Your task to perform on an android device: Empty the shopping cart on amazon.com. Search for "bose soundlink mini" on amazon.com, select the first entry, and add it to the cart. Image 0: 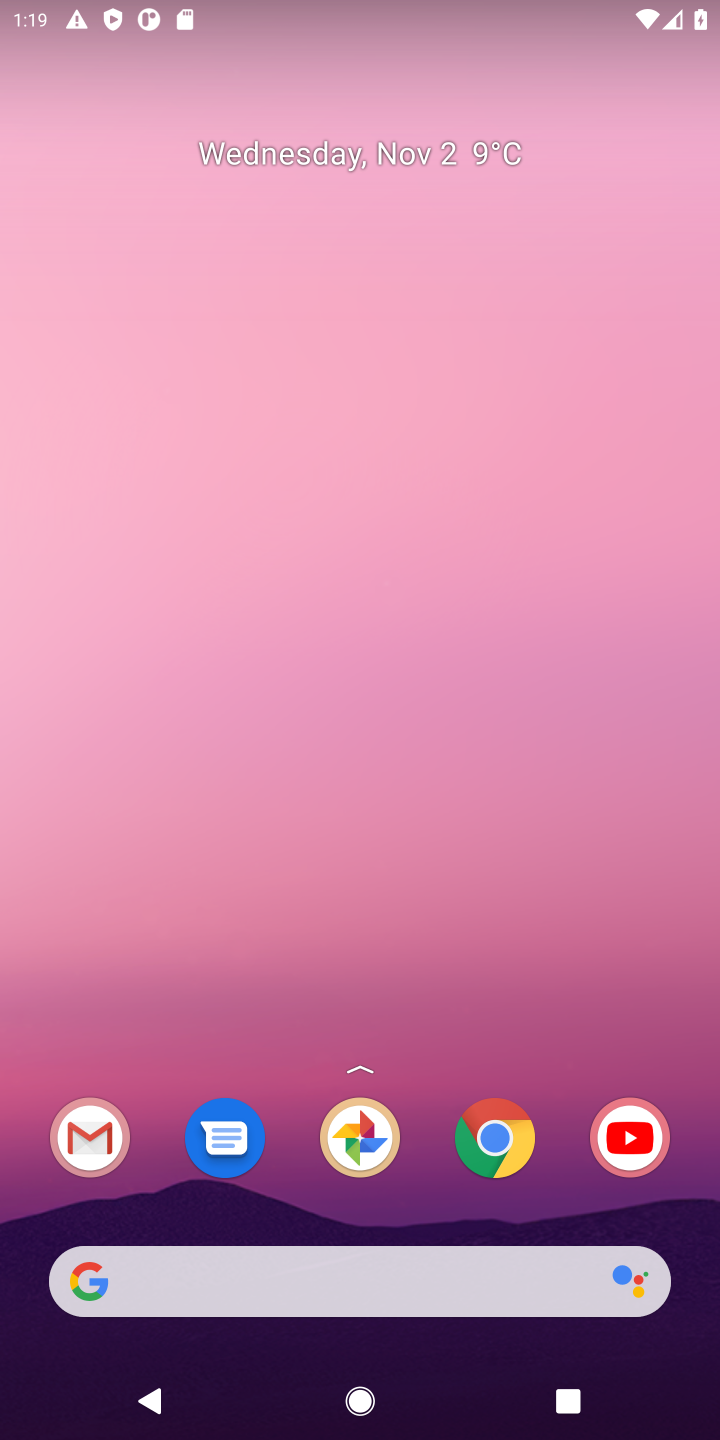
Step 0: click (482, 1172)
Your task to perform on an android device: Empty the shopping cart on amazon.com. Search for "bose soundlink mini" on amazon.com, select the first entry, and add it to the cart. Image 1: 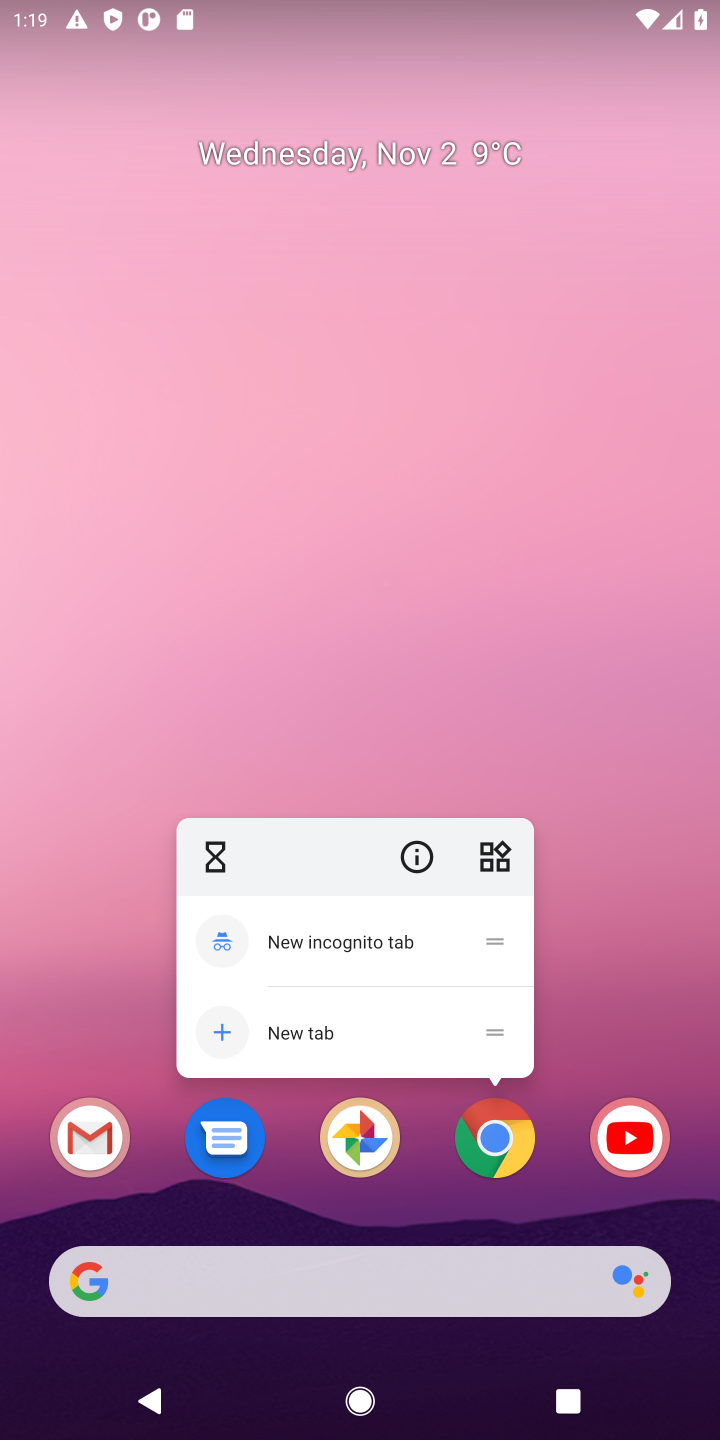
Step 1: click (496, 1147)
Your task to perform on an android device: Empty the shopping cart on amazon.com. Search for "bose soundlink mini" on amazon.com, select the first entry, and add it to the cart. Image 2: 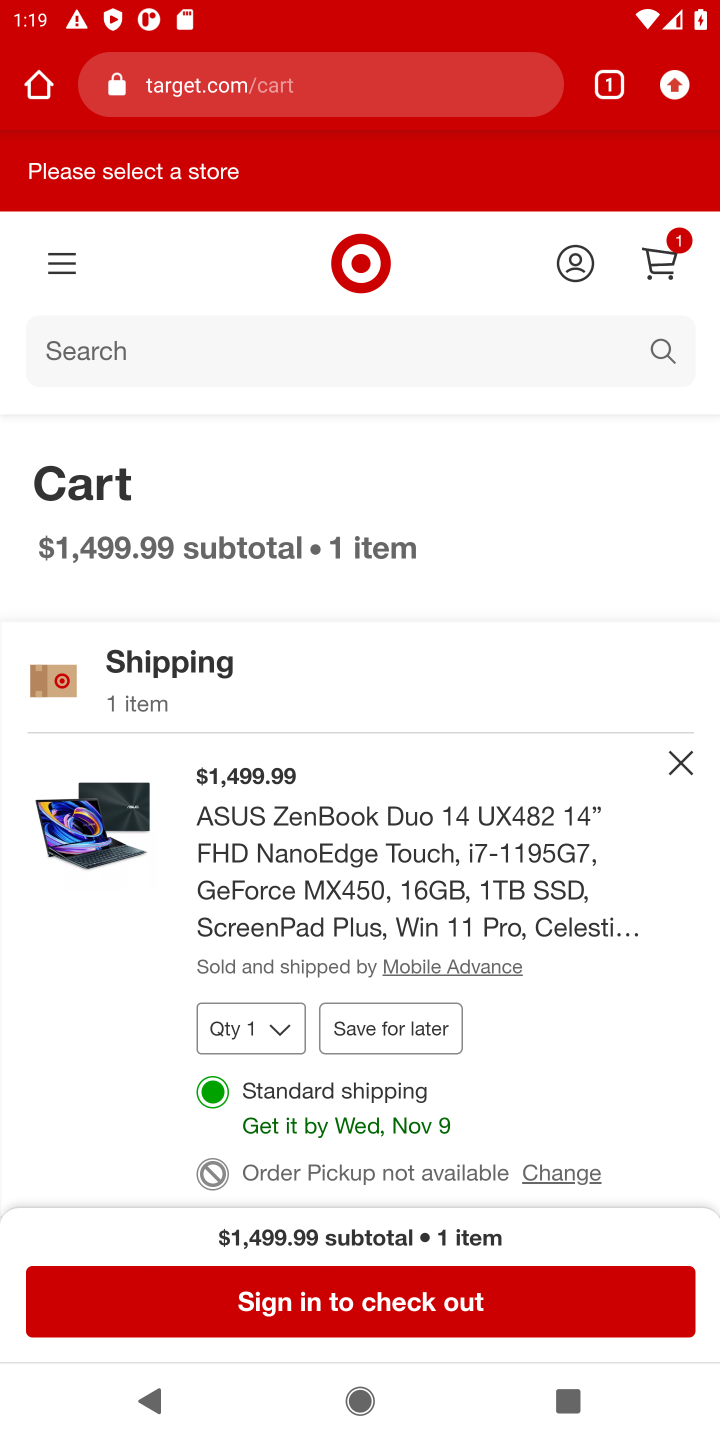
Step 2: click (231, 87)
Your task to perform on an android device: Empty the shopping cart on amazon.com. Search for "bose soundlink mini" on amazon.com, select the first entry, and add it to the cart. Image 3: 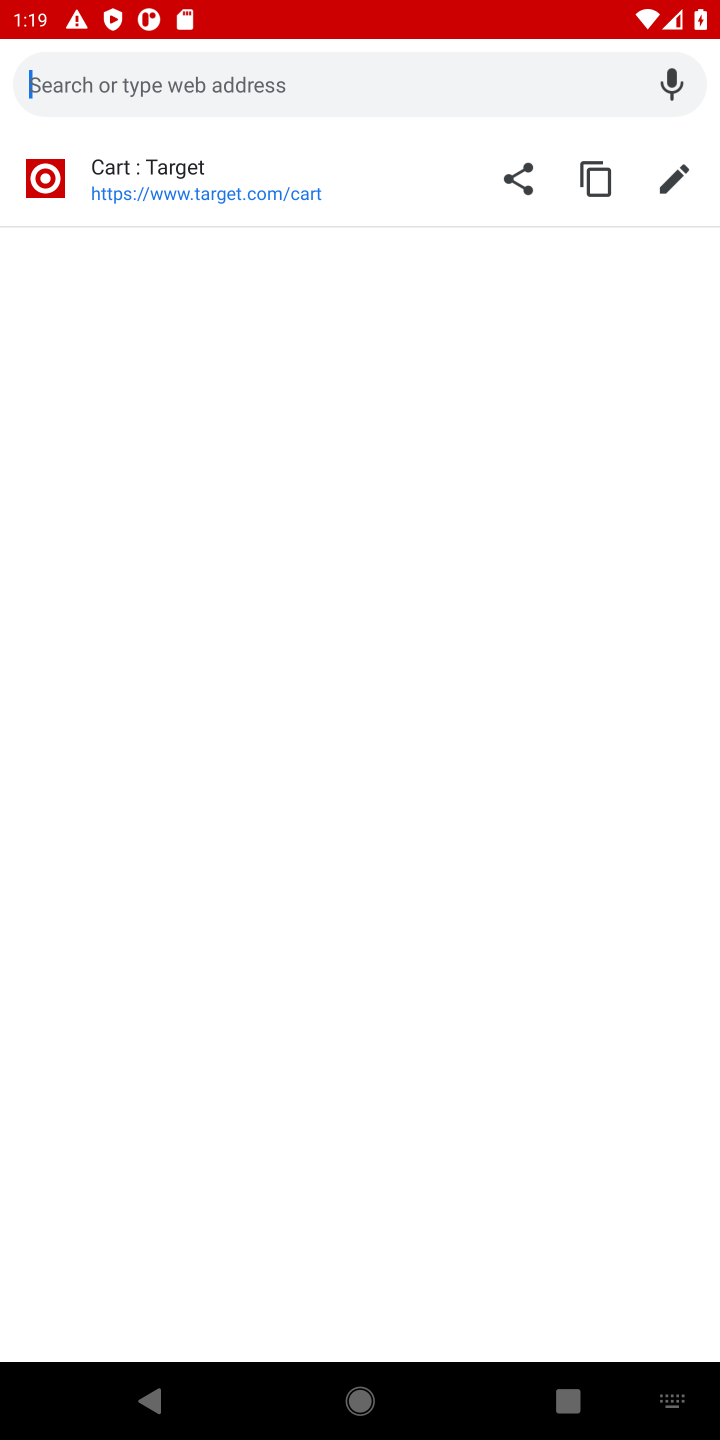
Step 3: type "amazon"
Your task to perform on an android device: Empty the shopping cart on amazon.com. Search for "bose soundlink mini" on amazon.com, select the first entry, and add it to the cart. Image 4: 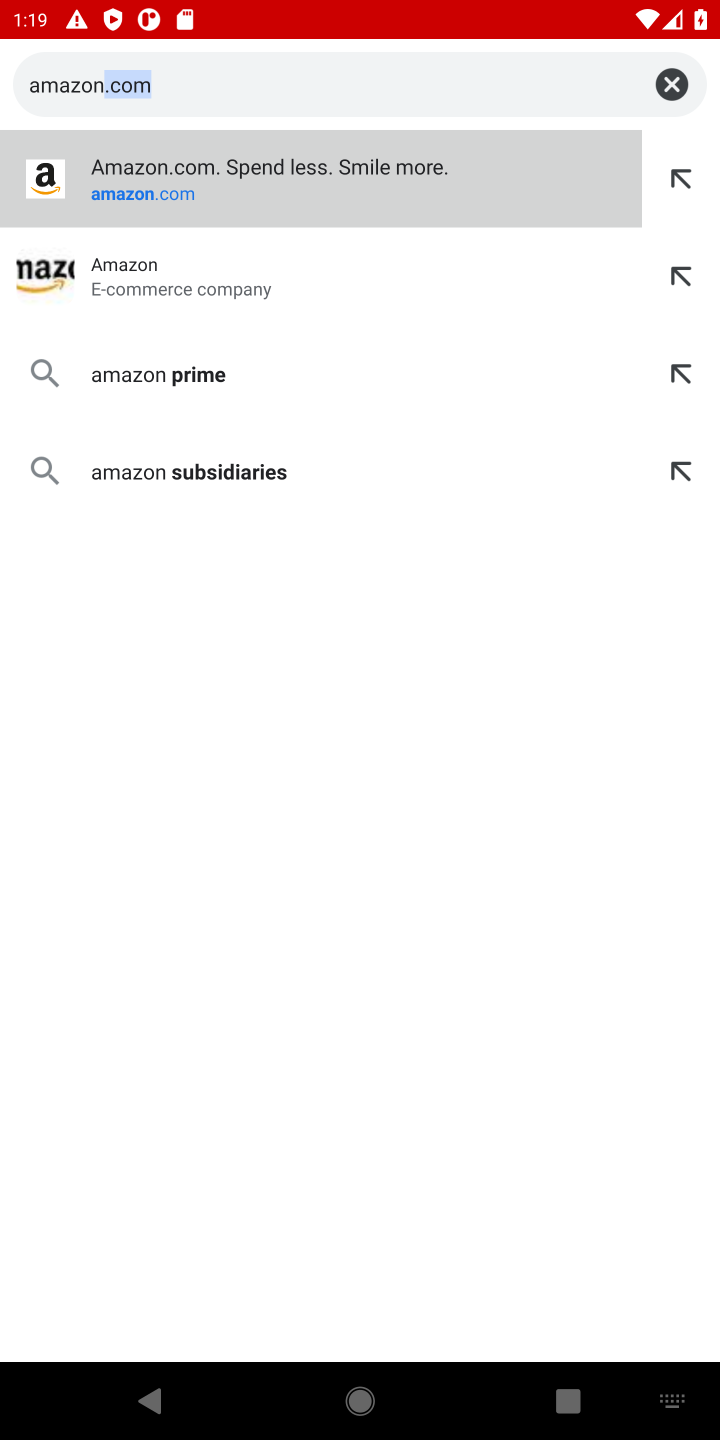
Step 4: click (195, 287)
Your task to perform on an android device: Empty the shopping cart on amazon.com. Search for "bose soundlink mini" on amazon.com, select the first entry, and add it to the cart. Image 5: 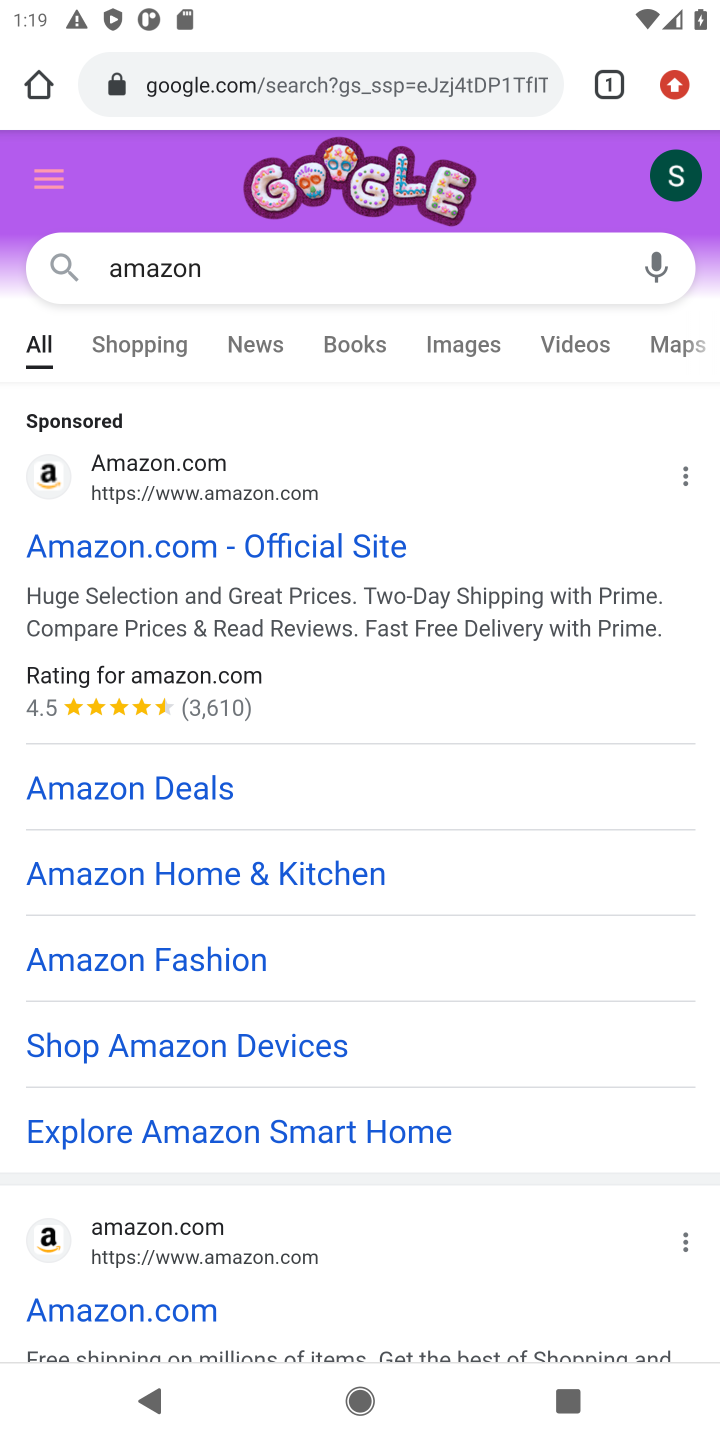
Step 5: click (91, 568)
Your task to perform on an android device: Empty the shopping cart on amazon.com. Search for "bose soundlink mini" on amazon.com, select the first entry, and add it to the cart. Image 6: 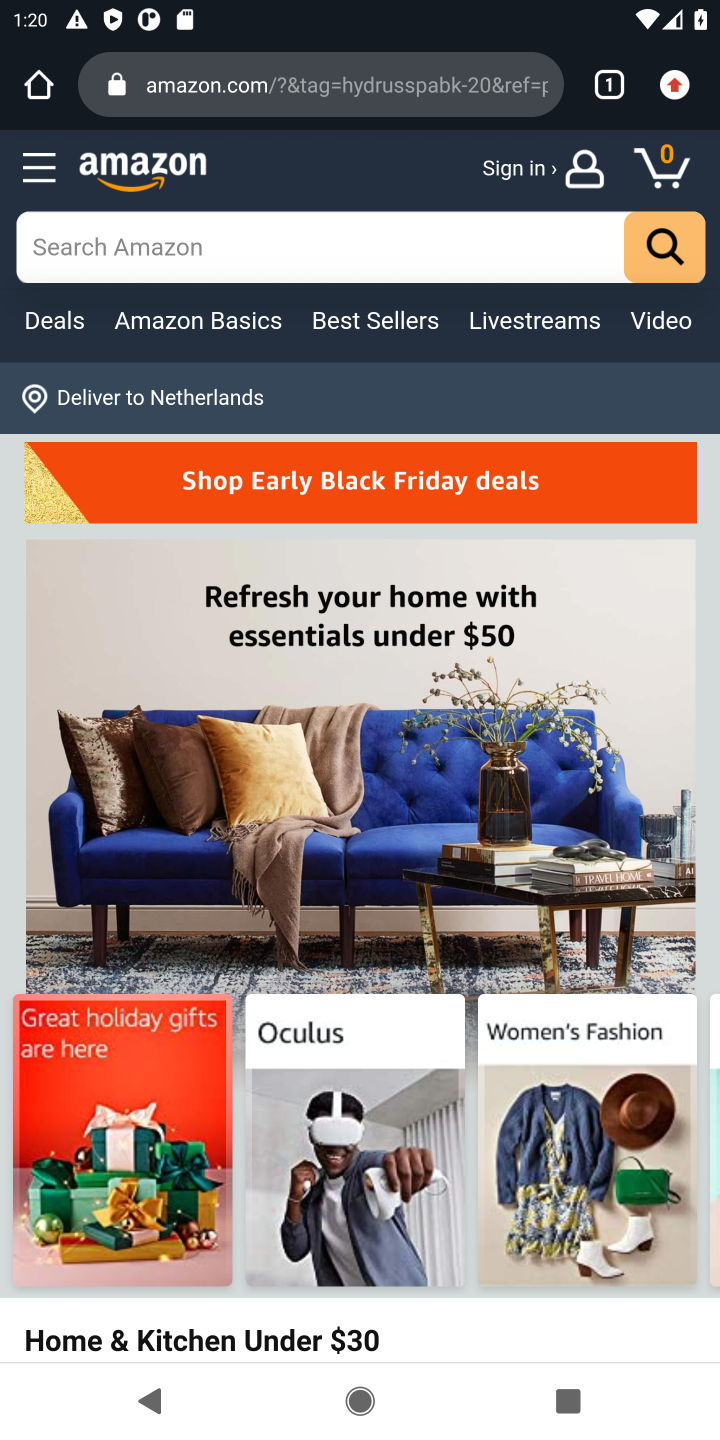
Step 6: click (685, 172)
Your task to perform on an android device: Empty the shopping cart on amazon.com. Search for "bose soundlink mini" on amazon.com, select the first entry, and add it to the cart. Image 7: 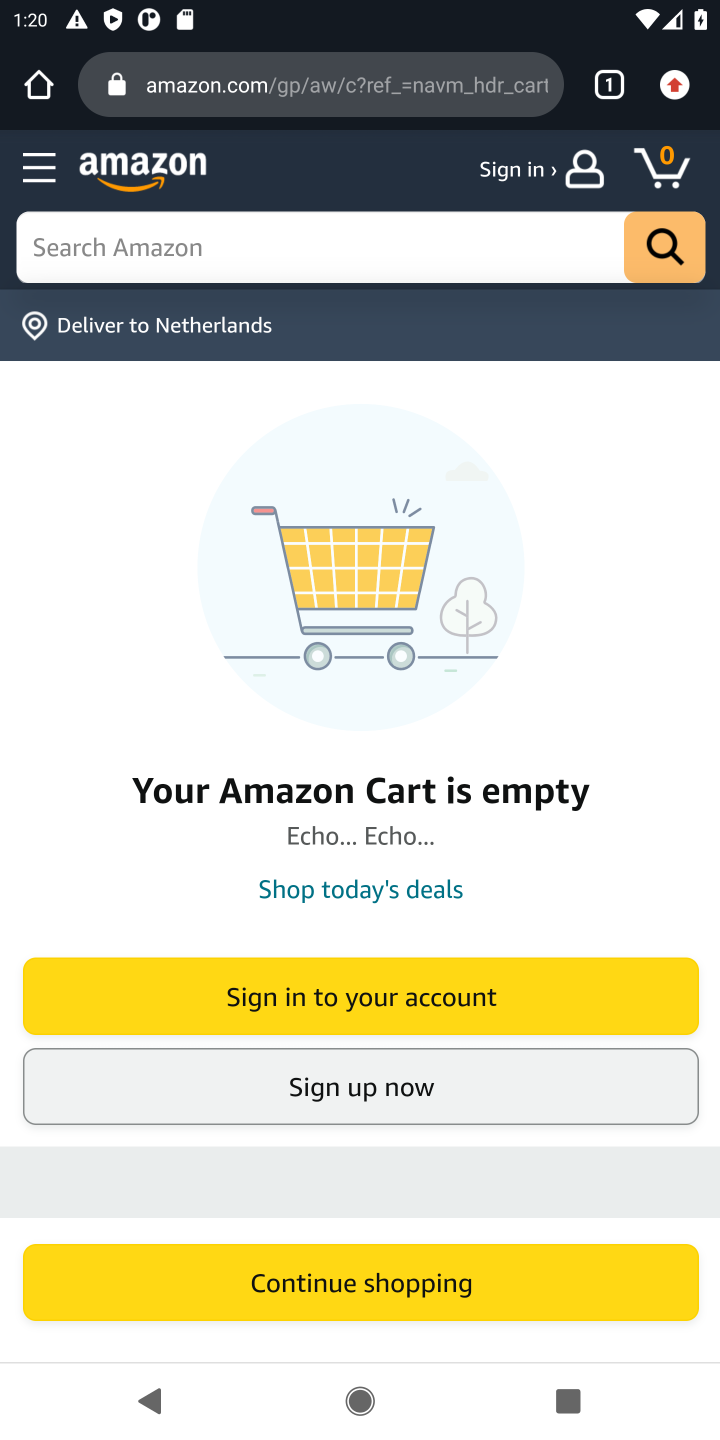
Step 7: click (276, 235)
Your task to perform on an android device: Empty the shopping cart on amazon.com. Search for "bose soundlink mini" on amazon.com, select the first entry, and add it to the cart. Image 8: 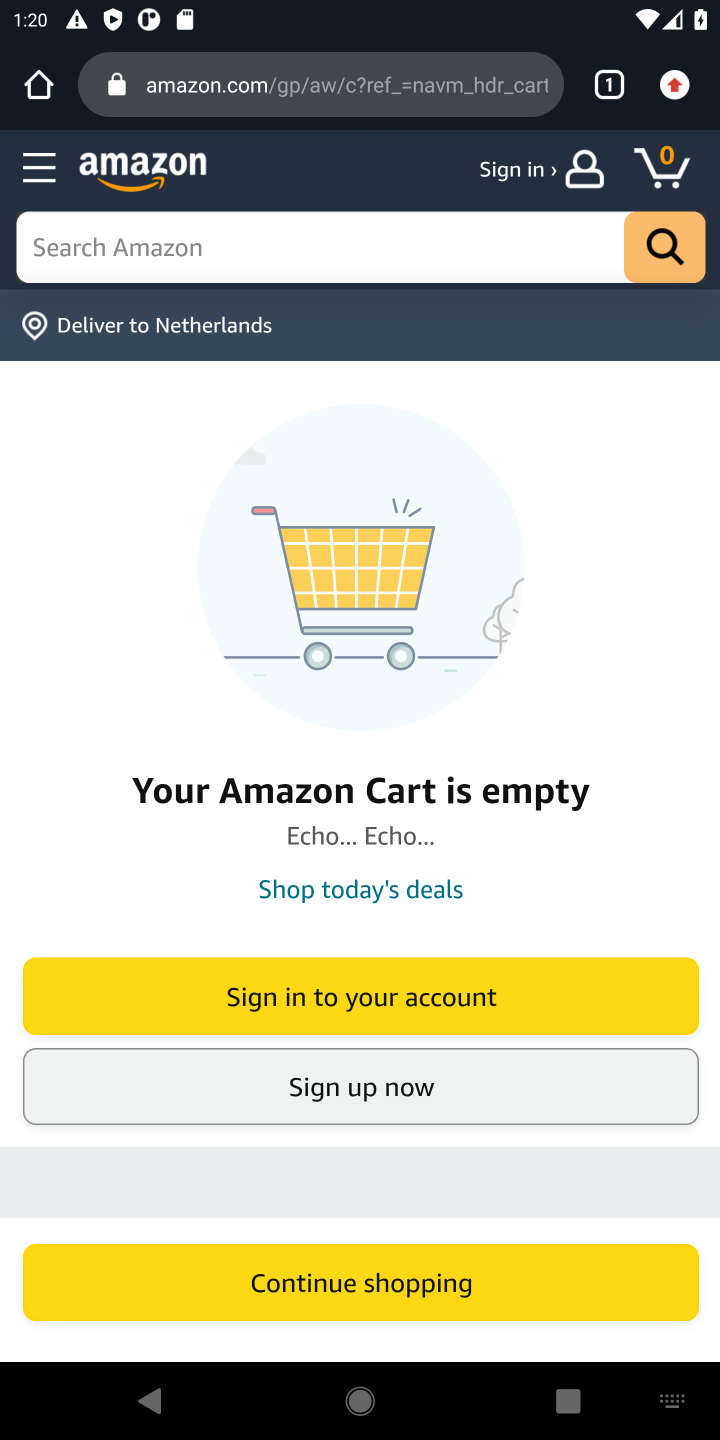
Step 8: type "bose soundlink mini"
Your task to perform on an android device: Empty the shopping cart on amazon.com. Search for "bose soundlink mini" on amazon.com, select the first entry, and add it to the cart. Image 9: 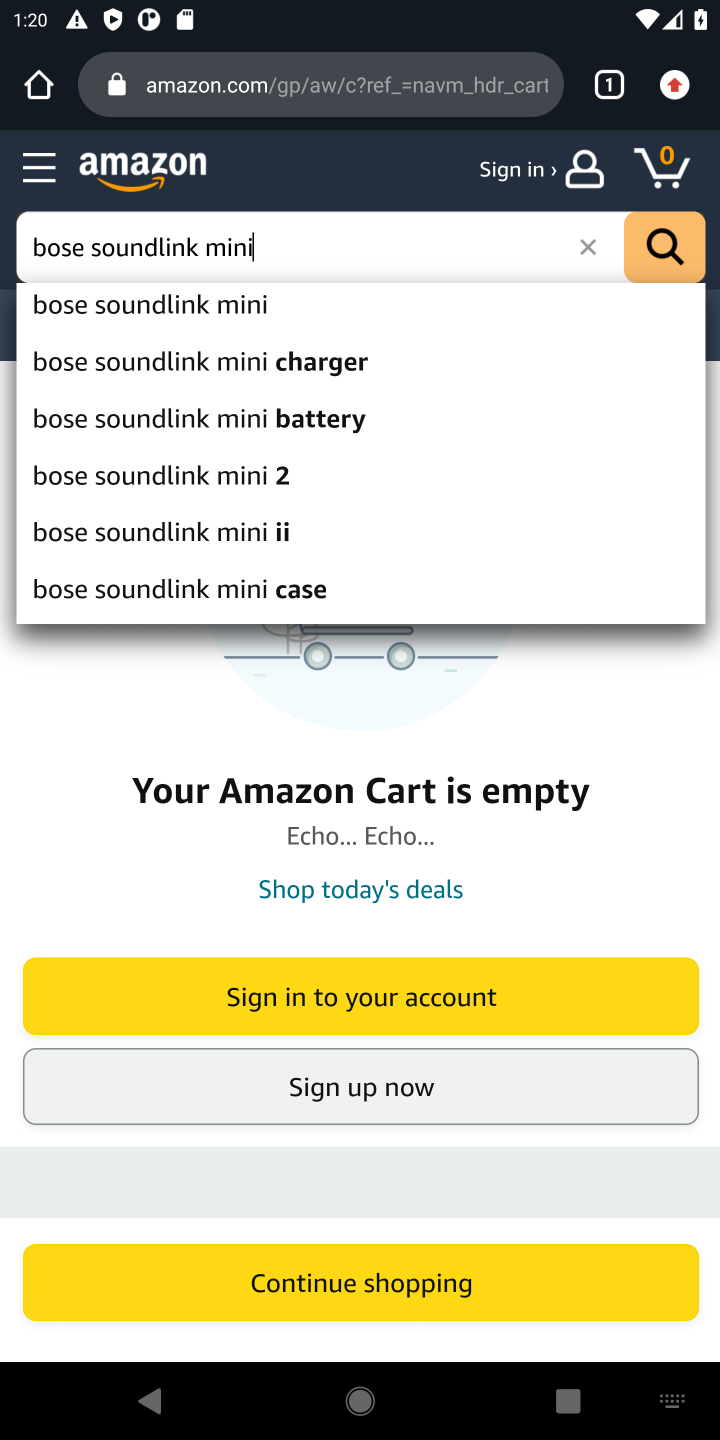
Step 9: click (638, 270)
Your task to perform on an android device: Empty the shopping cart on amazon.com. Search for "bose soundlink mini" on amazon.com, select the first entry, and add it to the cart. Image 10: 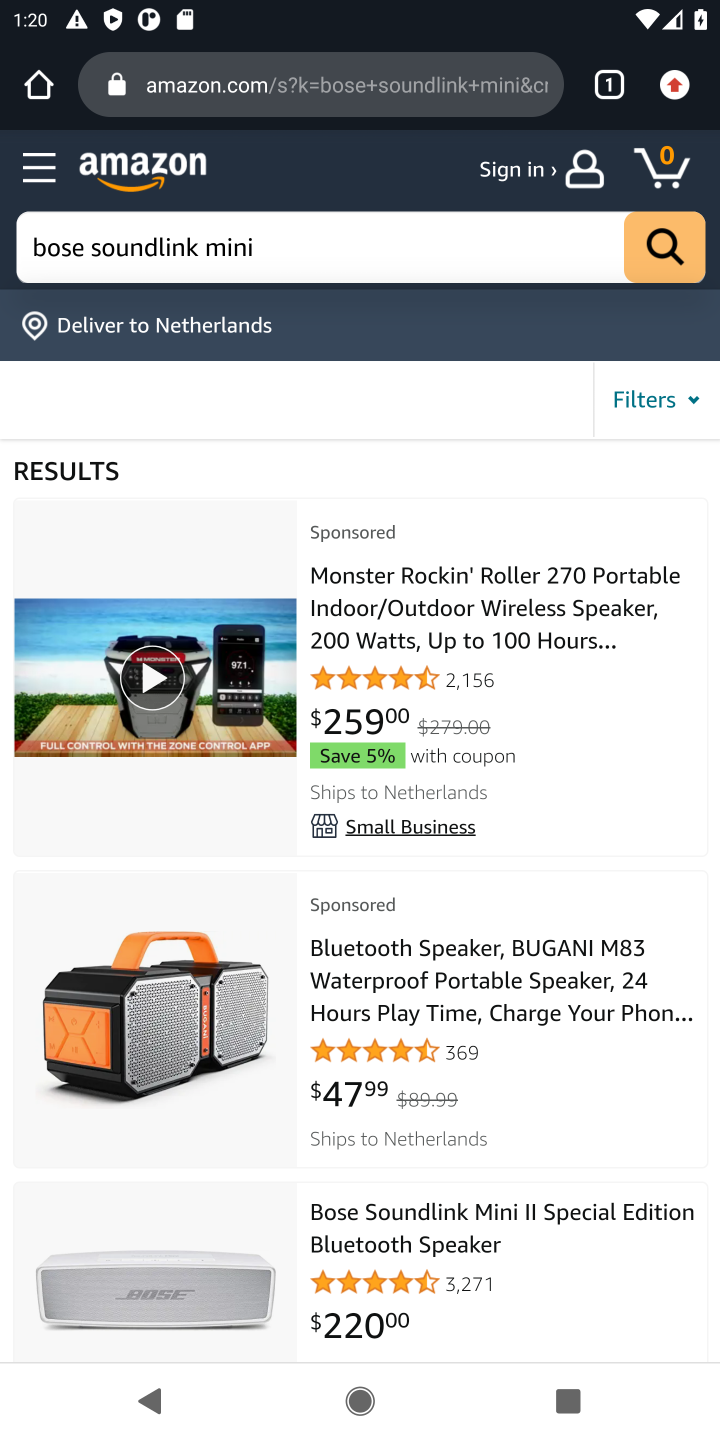
Step 10: click (445, 1199)
Your task to perform on an android device: Empty the shopping cart on amazon.com. Search for "bose soundlink mini" on amazon.com, select the first entry, and add it to the cart. Image 11: 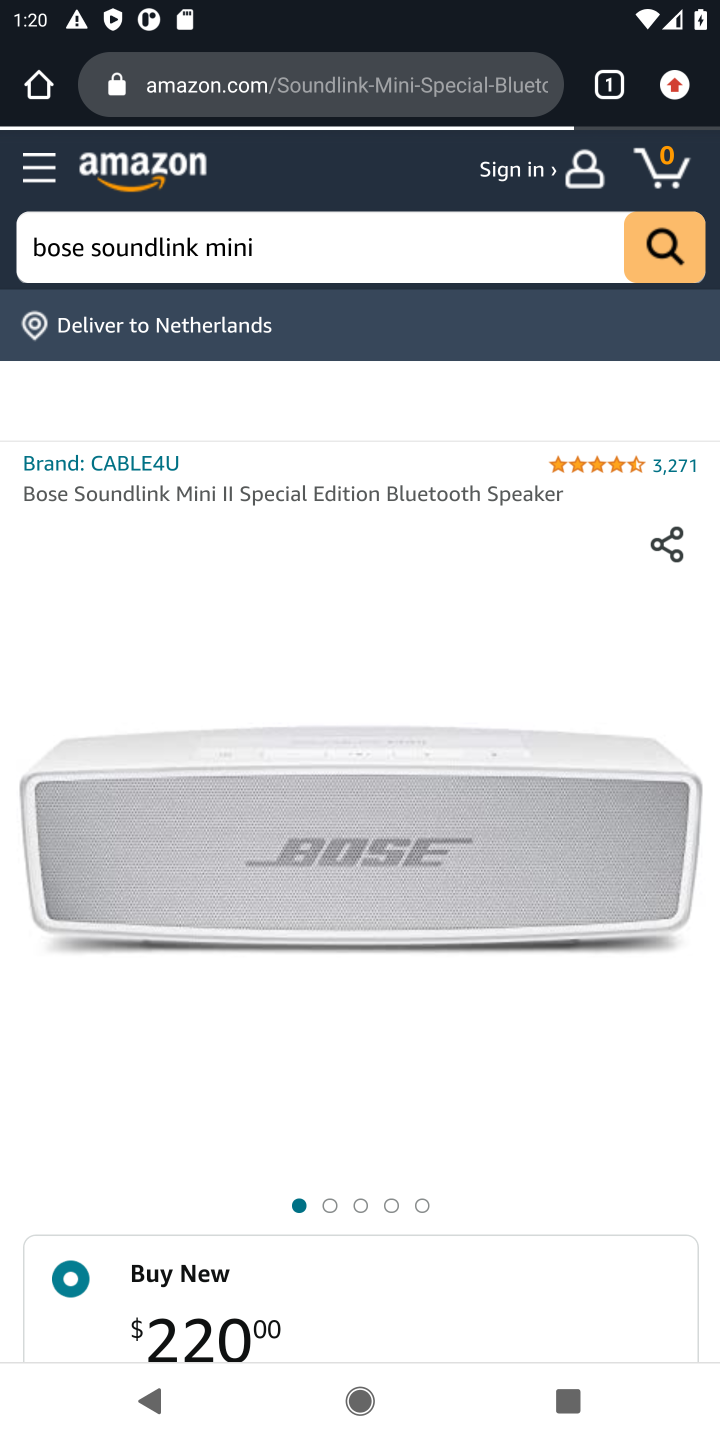
Step 11: drag from (364, 1326) to (480, 658)
Your task to perform on an android device: Empty the shopping cart on amazon.com. Search for "bose soundlink mini" on amazon.com, select the first entry, and add it to the cart. Image 12: 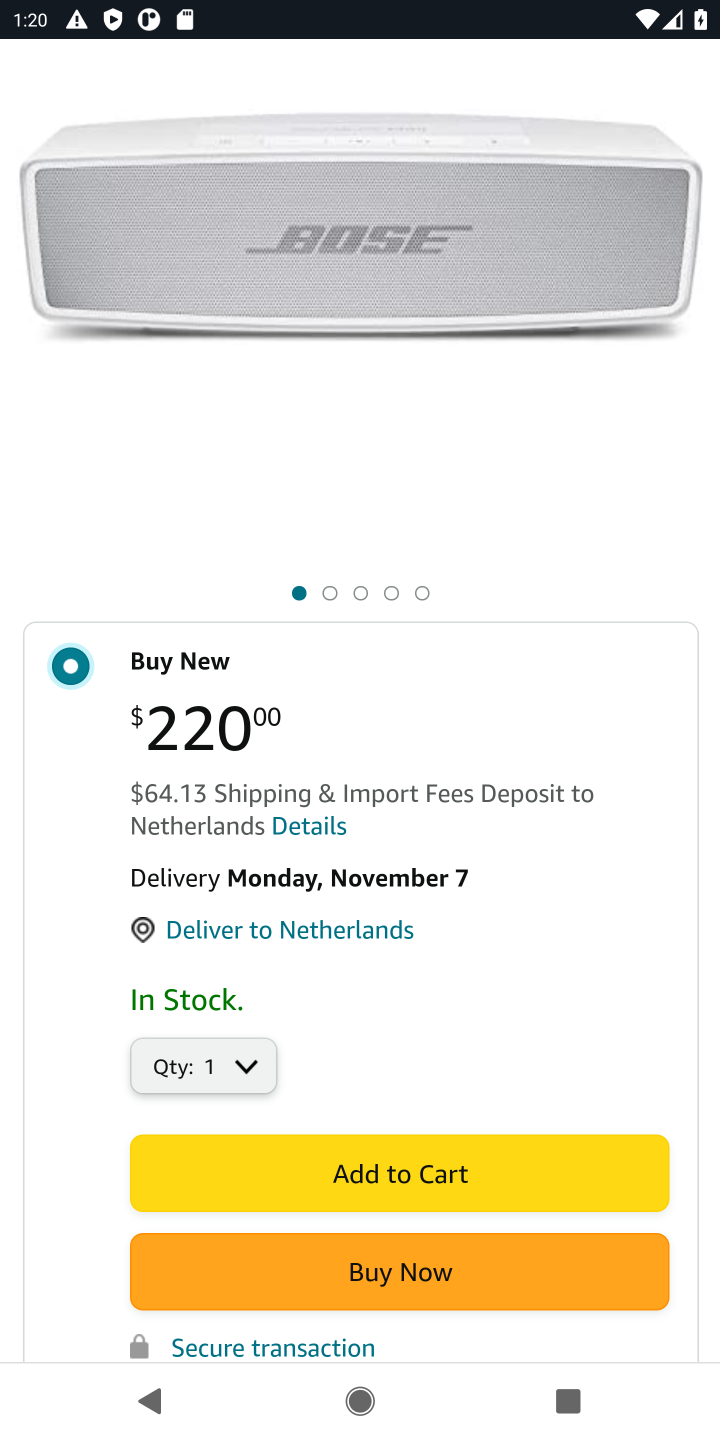
Step 12: click (477, 1148)
Your task to perform on an android device: Empty the shopping cart on amazon.com. Search for "bose soundlink mini" on amazon.com, select the first entry, and add it to the cart. Image 13: 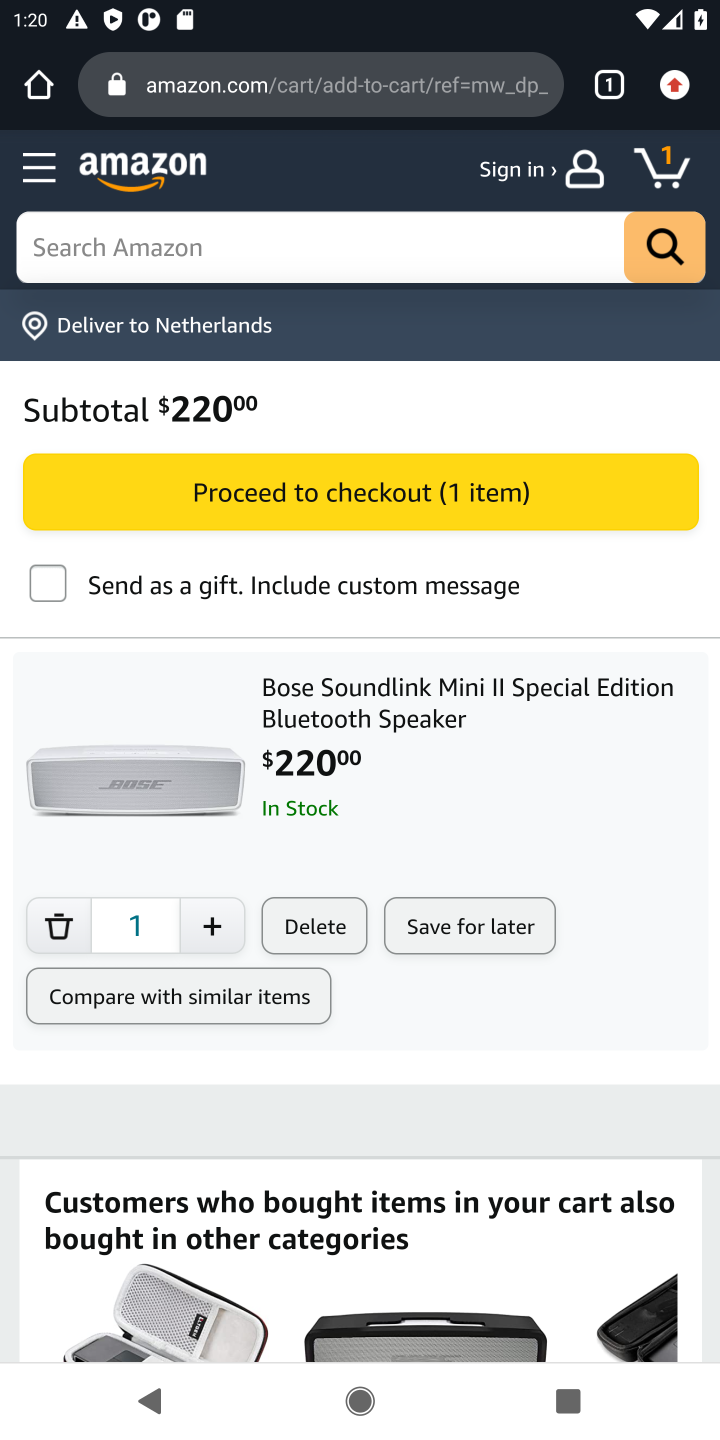
Step 13: task complete